Your task to perform on an android device: manage bookmarks in the chrome app Image 0: 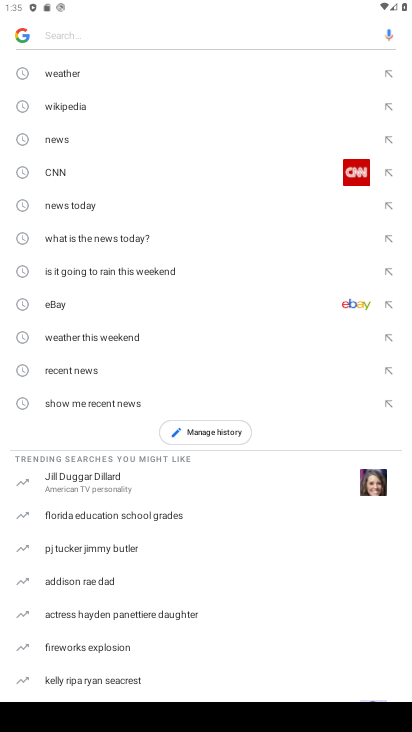
Step 0: press home button
Your task to perform on an android device: manage bookmarks in the chrome app Image 1: 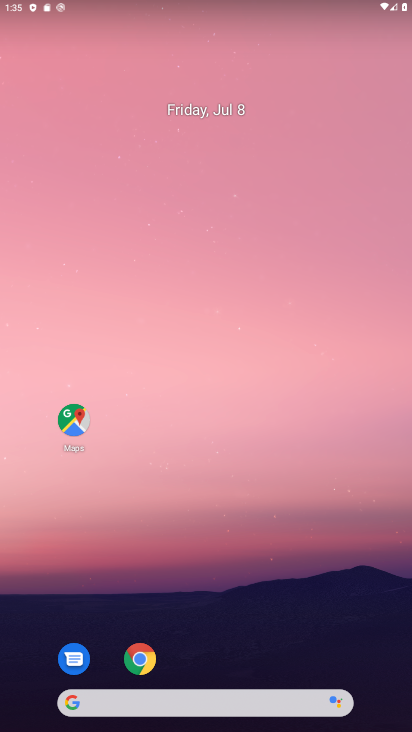
Step 1: click (151, 654)
Your task to perform on an android device: manage bookmarks in the chrome app Image 2: 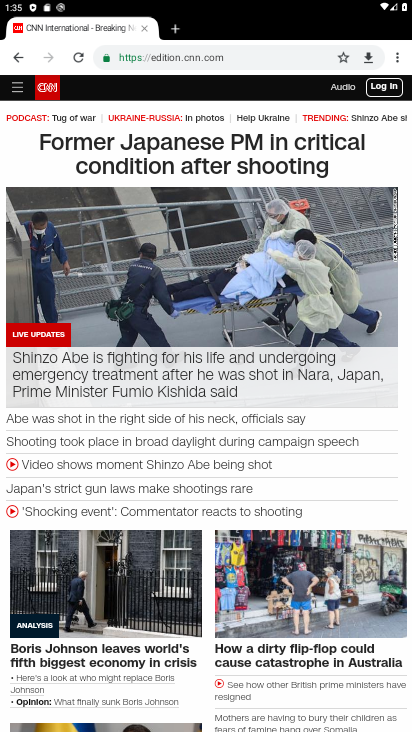
Step 2: click (401, 57)
Your task to perform on an android device: manage bookmarks in the chrome app Image 3: 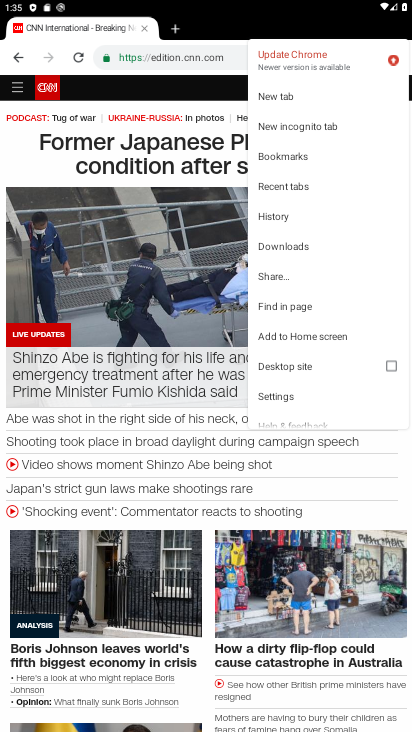
Step 3: click (274, 160)
Your task to perform on an android device: manage bookmarks in the chrome app Image 4: 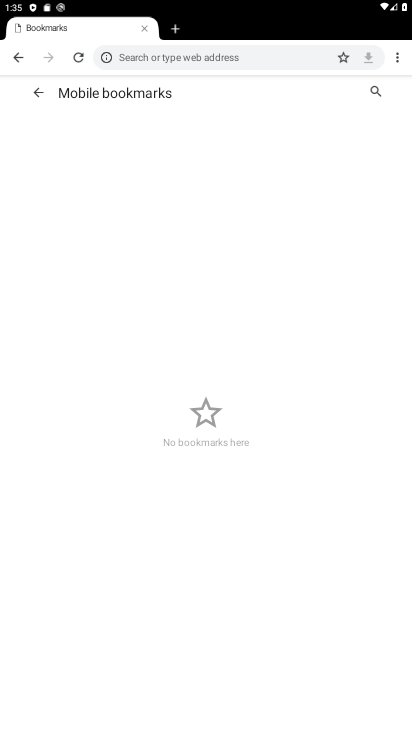
Step 4: task complete